Your task to perform on an android device: open wifi settings Image 0: 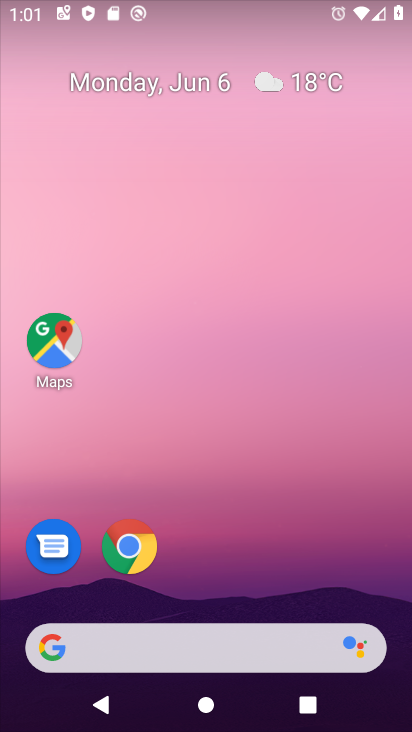
Step 0: press home button
Your task to perform on an android device: open wifi settings Image 1: 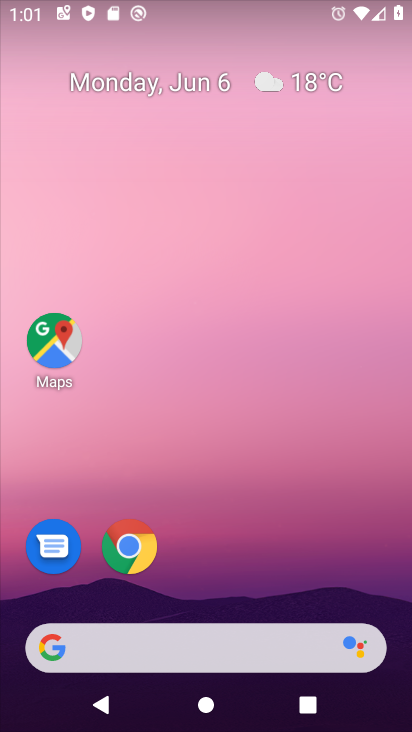
Step 1: drag from (273, 577) to (347, 231)
Your task to perform on an android device: open wifi settings Image 2: 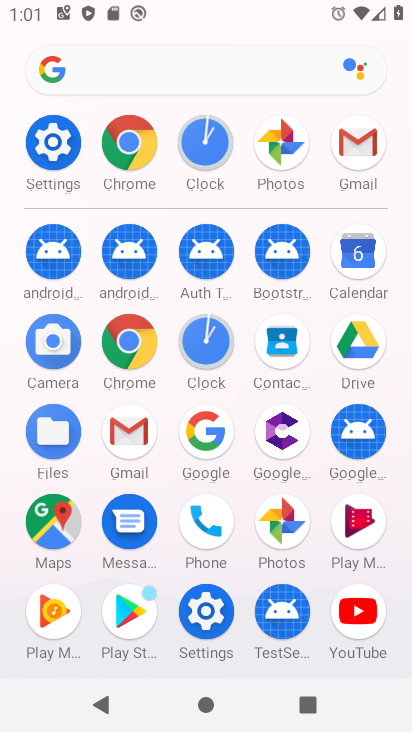
Step 2: click (49, 147)
Your task to perform on an android device: open wifi settings Image 3: 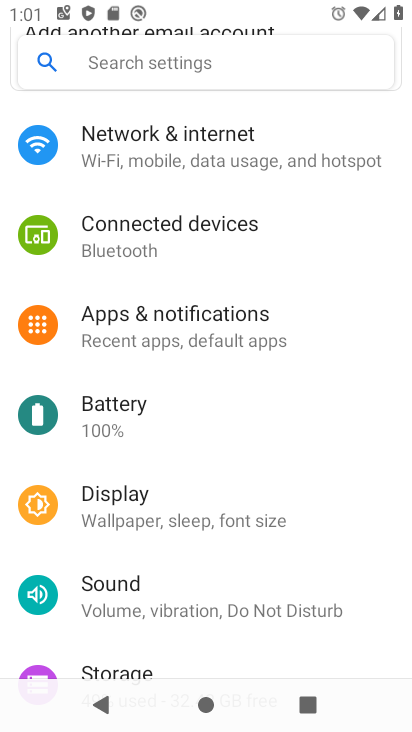
Step 3: click (227, 150)
Your task to perform on an android device: open wifi settings Image 4: 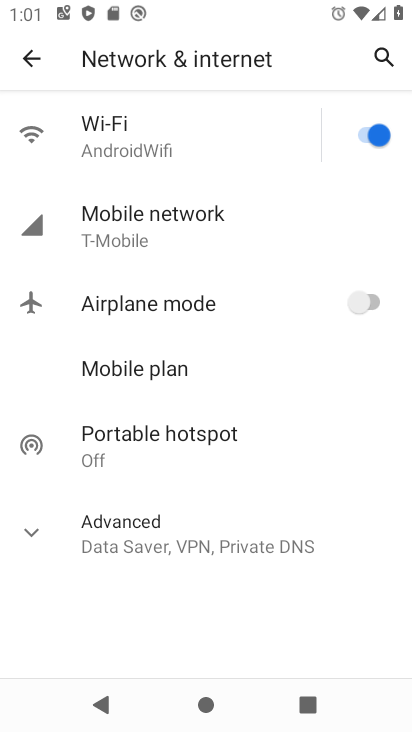
Step 4: click (222, 155)
Your task to perform on an android device: open wifi settings Image 5: 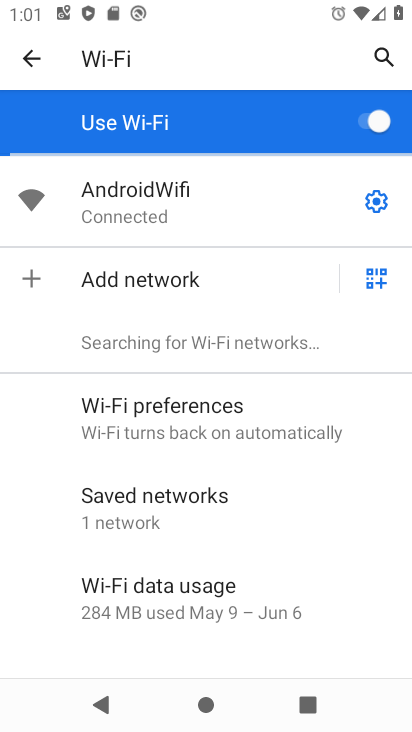
Step 5: task complete